Your task to perform on an android device: turn on notifications settings in the gmail app Image 0: 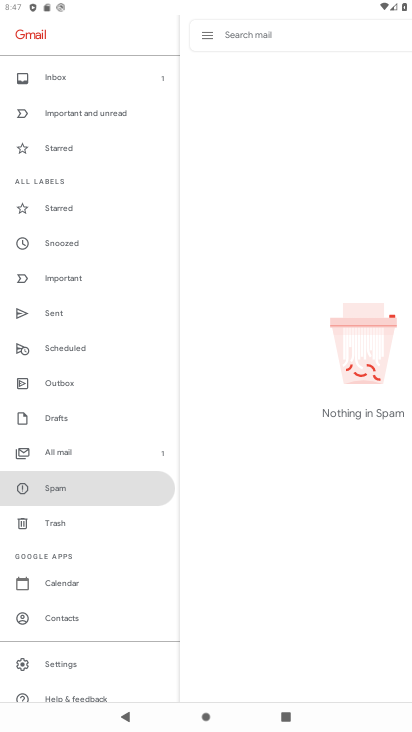
Step 0: press home button
Your task to perform on an android device: turn on notifications settings in the gmail app Image 1: 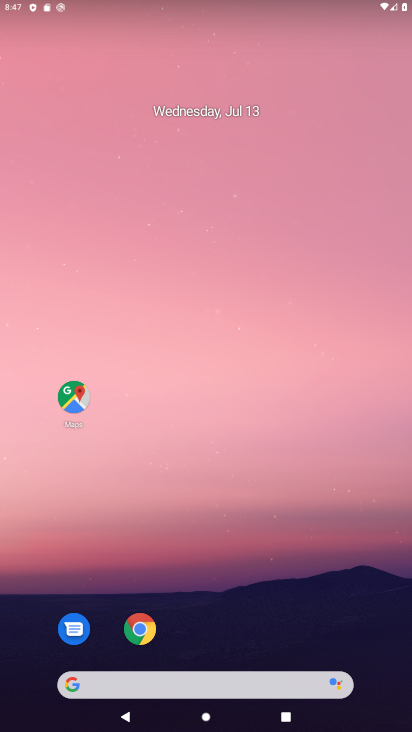
Step 1: drag from (290, 608) to (310, 65)
Your task to perform on an android device: turn on notifications settings in the gmail app Image 2: 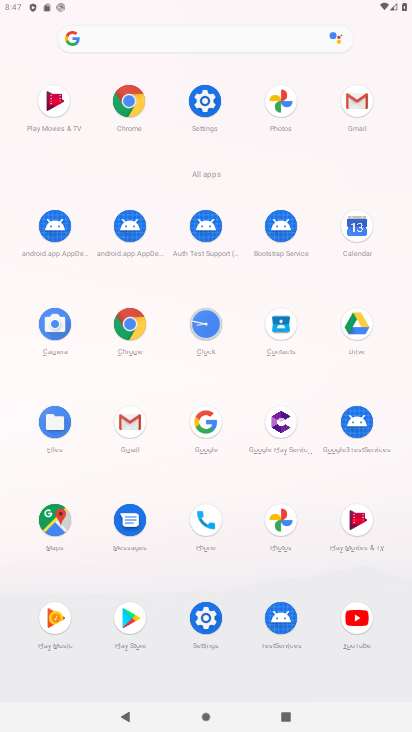
Step 2: click (125, 424)
Your task to perform on an android device: turn on notifications settings in the gmail app Image 3: 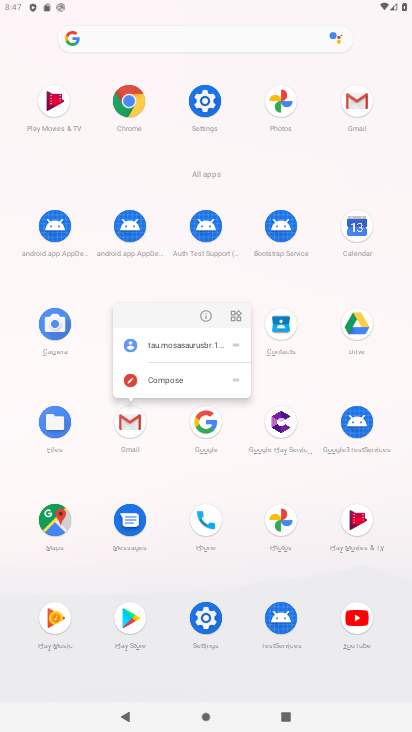
Step 3: click (202, 316)
Your task to perform on an android device: turn on notifications settings in the gmail app Image 4: 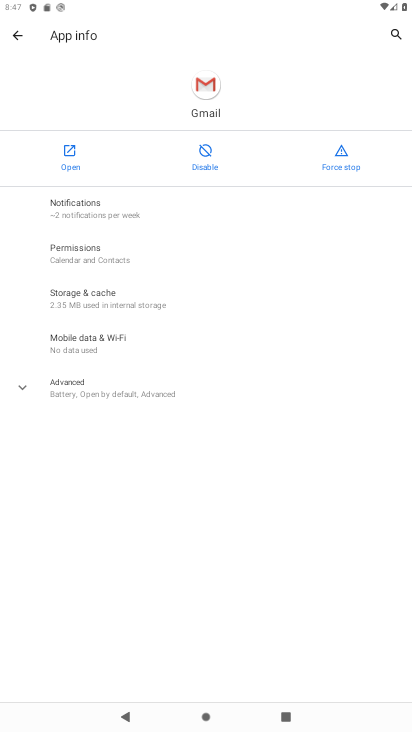
Step 4: click (133, 215)
Your task to perform on an android device: turn on notifications settings in the gmail app Image 5: 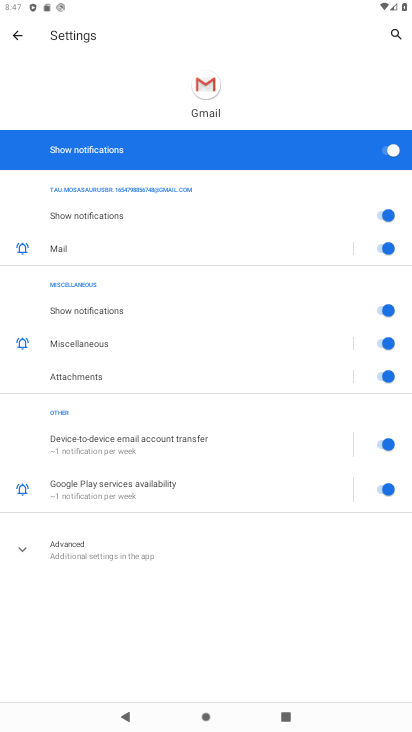
Step 5: task complete